Your task to perform on an android device: Open calendar and show me the third week of next month Image 0: 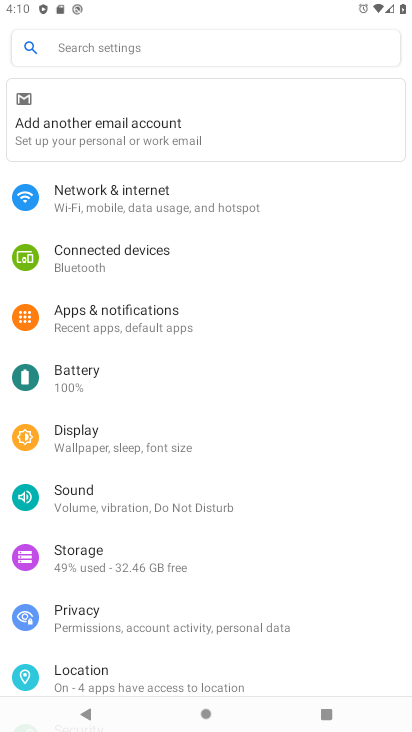
Step 0: press home button
Your task to perform on an android device: Open calendar and show me the third week of next month Image 1: 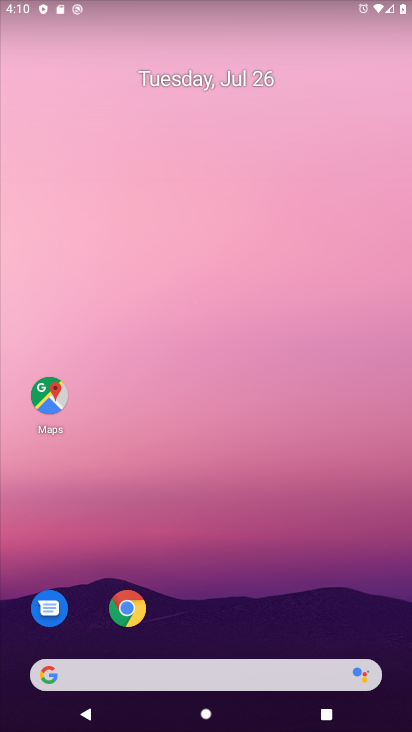
Step 1: drag from (388, 718) to (376, 163)
Your task to perform on an android device: Open calendar and show me the third week of next month Image 2: 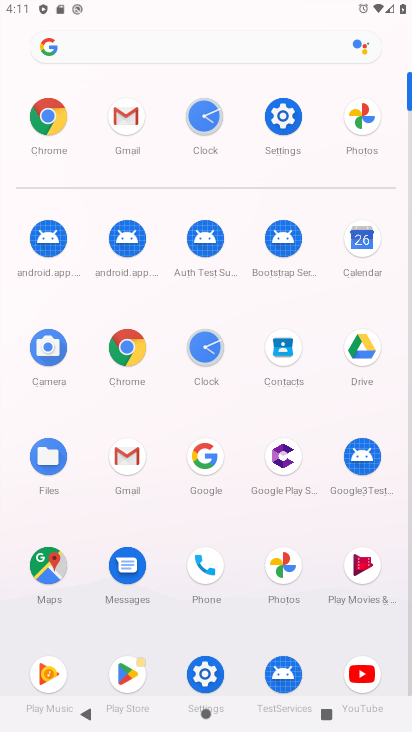
Step 2: click (353, 248)
Your task to perform on an android device: Open calendar and show me the third week of next month Image 3: 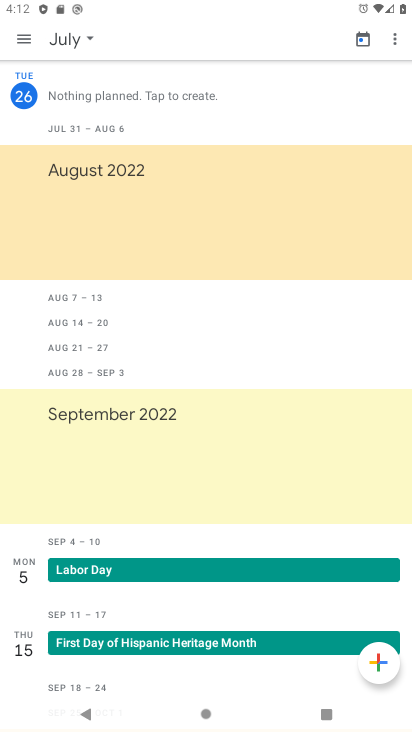
Step 3: click (89, 41)
Your task to perform on an android device: Open calendar and show me the third week of next month Image 4: 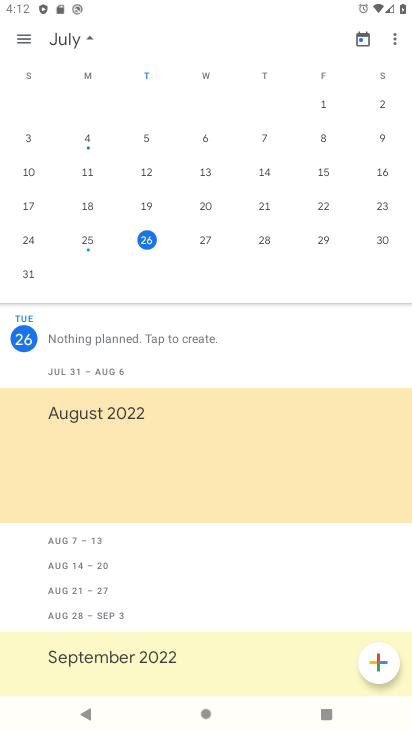
Step 4: drag from (368, 186) to (64, 182)
Your task to perform on an android device: Open calendar and show me the third week of next month Image 5: 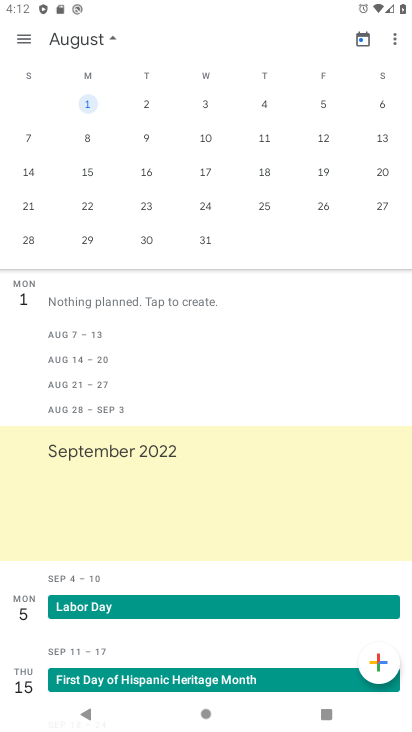
Step 5: click (262, 167)
Your task to perform on an android device: Open calendar and show me the third week of next month Image 6: 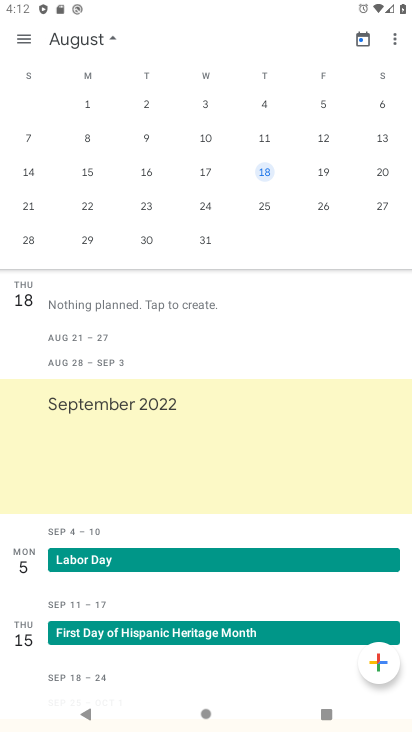
Step 6: task complete